Your task to perform on an android device: turn on the 12-hour format for clock Image 0: 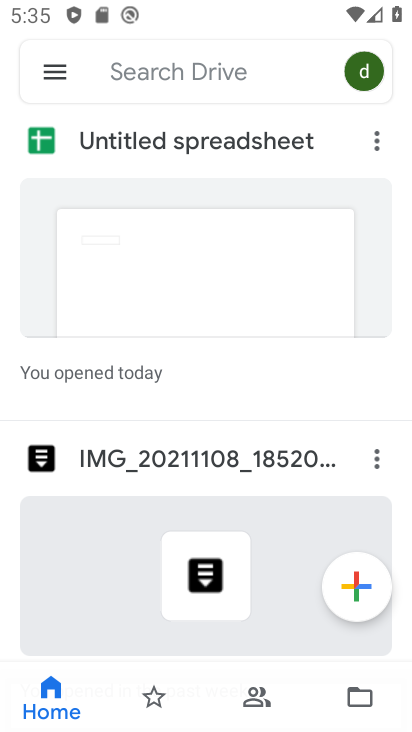
Step 0: press back button
Your task to perform on an android device: turn on the 12-hour format for clock Image 1: 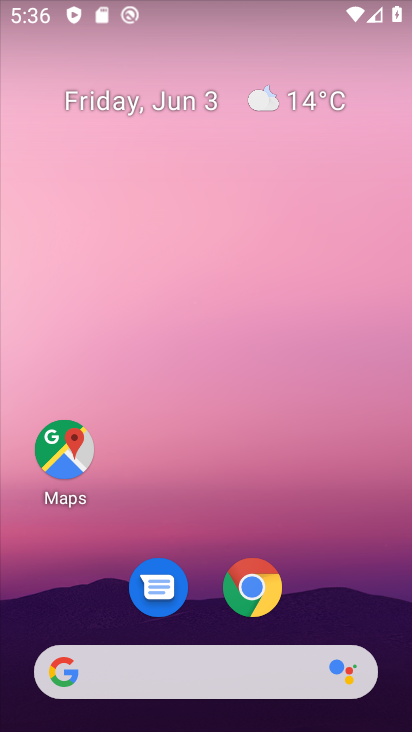
Step 1: drag from (319, 552) to (211, 59)
Your task to perform on an android device: turn on the 12-hour format for clock Image 2: 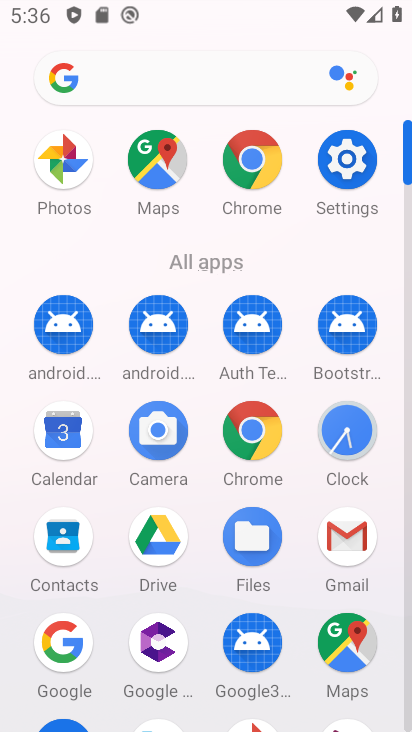
Step 2: click (348, 427)
Your task to perform on an android device: turn on the 12-hour format for clock Image 3: 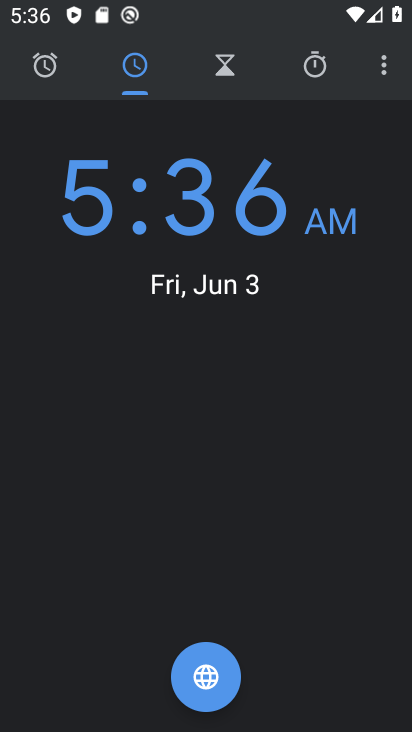
Step 3: drag from (387, 67) to (252, 126)
Your task to perform on an android device: turn on the 12-hour format for clock Image 4: 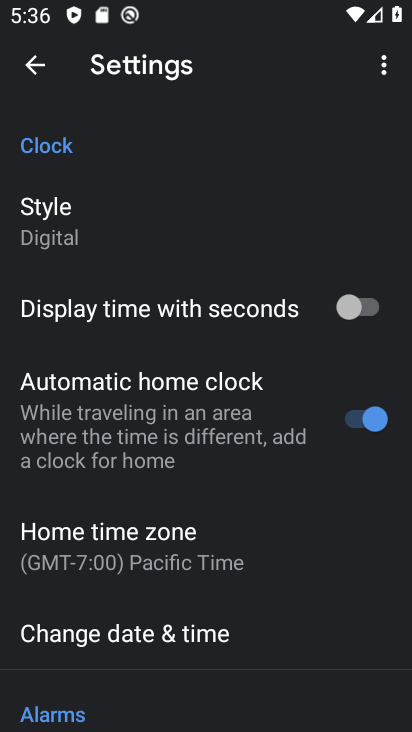
Step 4: drag from (249, 549) to (205, 157)
Your task to perform on an android device: turn on the 12-hour format for clock Image 5: 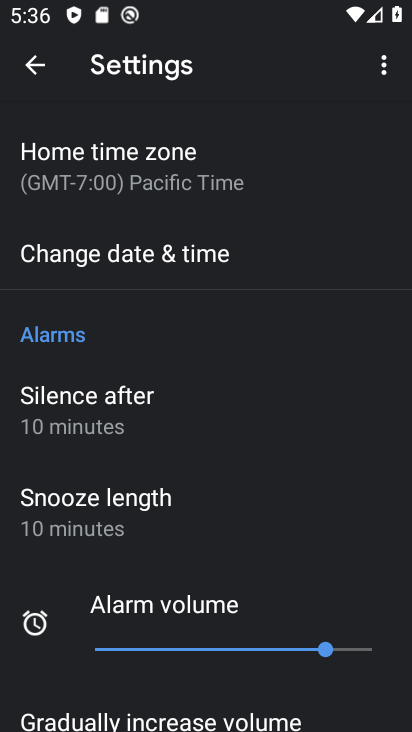
Step 5: click (179, 257)
Your task to perform on an android device: turn on the 12-hour format for clock Image 6: 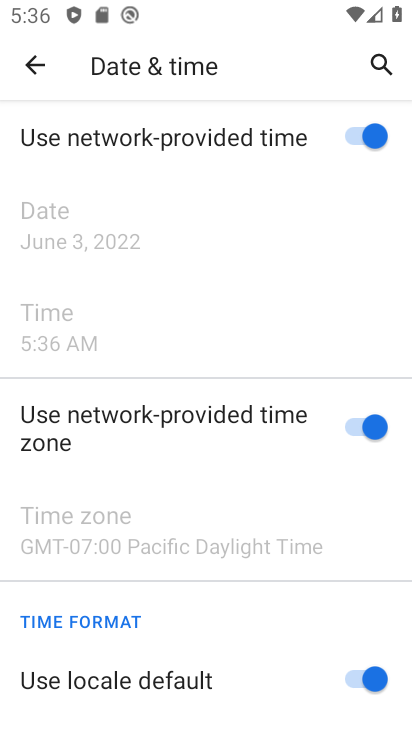
Step 6: drag from (197, 555) to (210, 167)
Your task to perform on an android device: turn on the 12-hour format for clock Image 7: 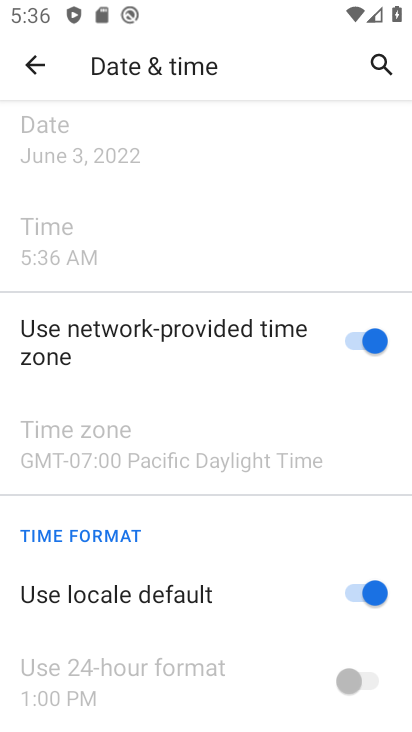
Step 7: click (359, 593)
Your task to perform on an android device: turn on the 12-hour format for clock Image 8: 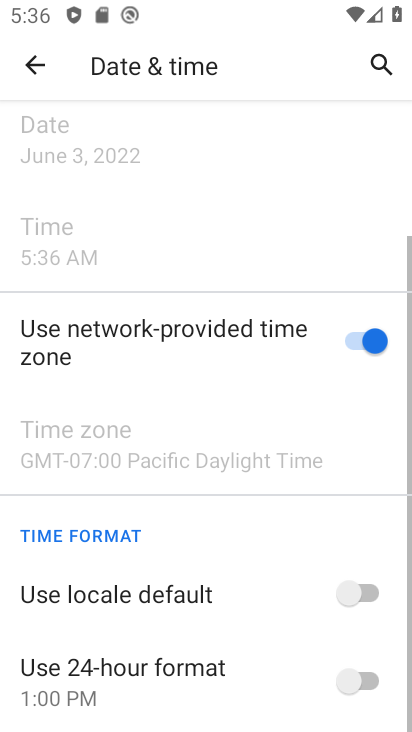
Step 8: click (358, 666)
Your task to perform on an android device: turn on the 12-hour format for clock Image 9: 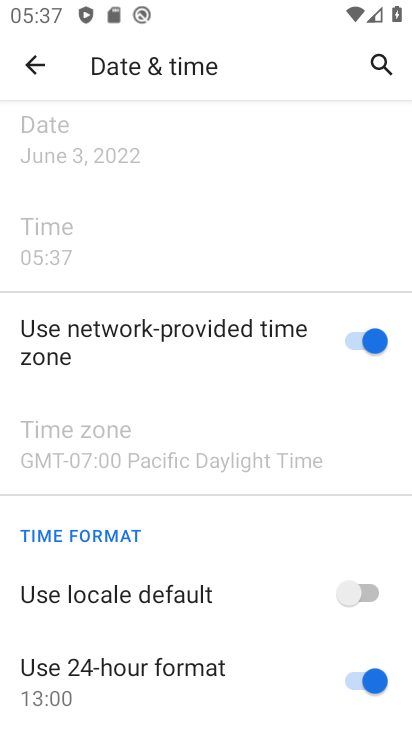
Step 9: click (370, 594)
Your task to perform on an android device: turn on the 12-hour format for clock Image 10: 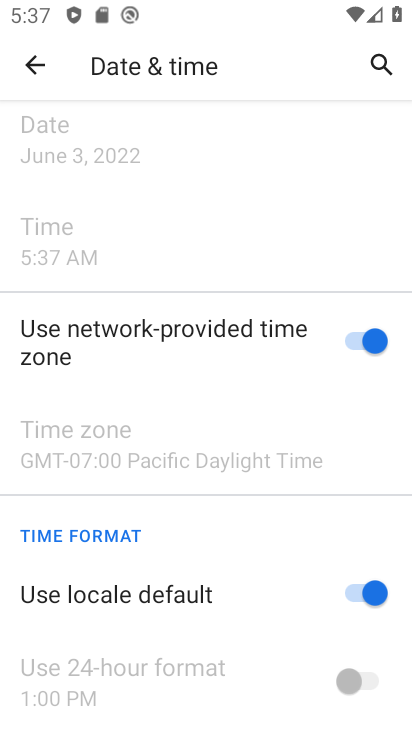
Step 10: task complete